Your task to perform on an android device: Go to Google Image 0: 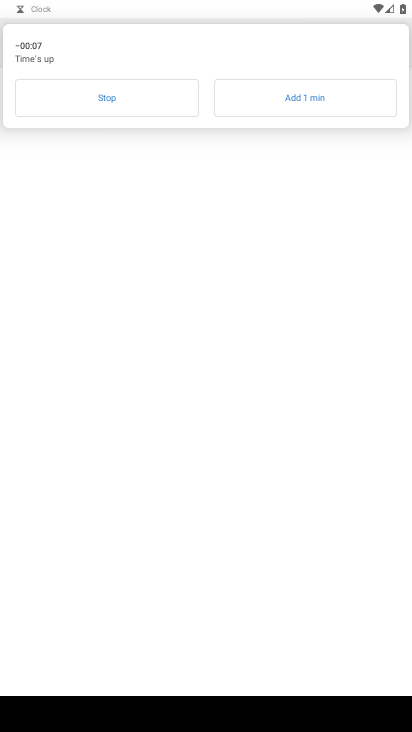
Step 0: press home button
Your task to perform on an android device: Go to Google Image 1: 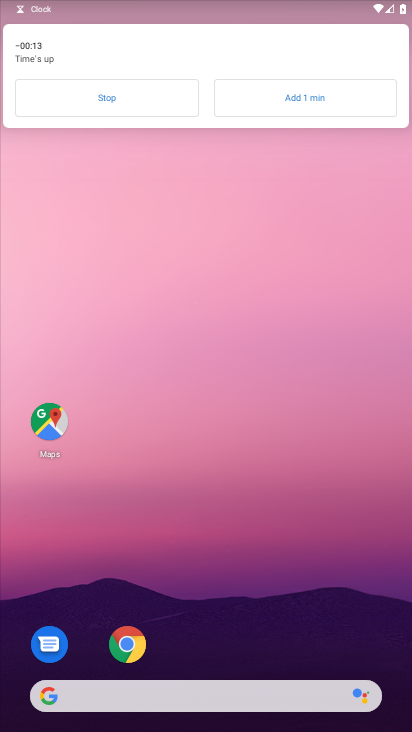
Step 1: click (102, 104)
Your task to perform on an android device: Go to Google Image 2: 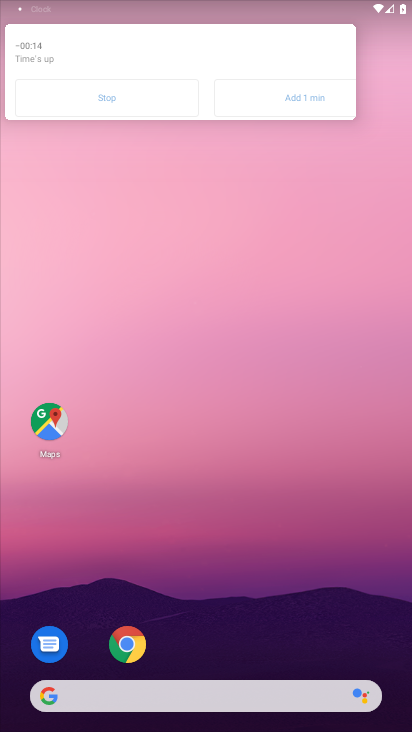
Step 2: click (110, 91)
Your task to perform on an android device: Go to Google Image 3: 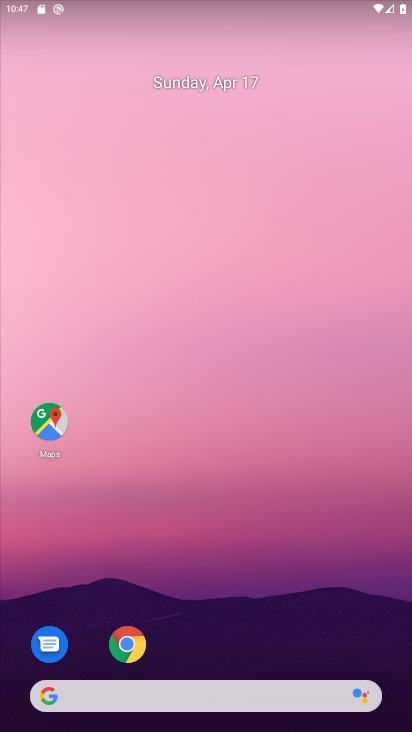
Step 3: drag from (207, 638) to (295, 63)
Your task to perform on an android device: Go to Google Image 4: 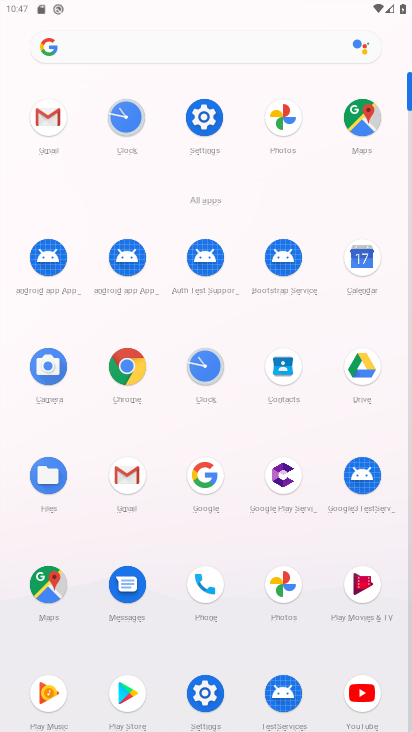
Step 4: click (49, 46)
Your task to perform on an android device: Go to Google Image 5: 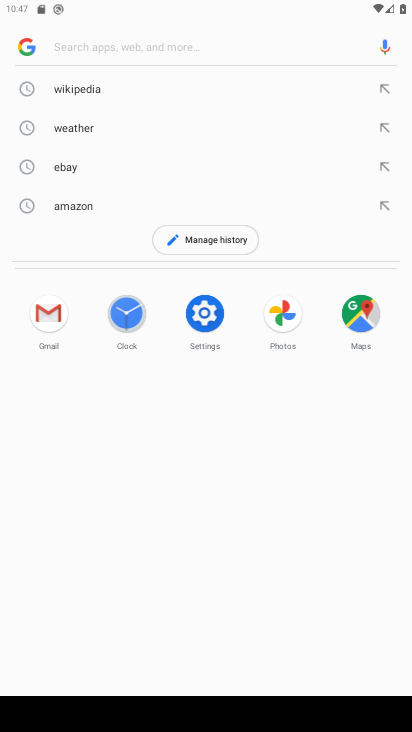
Step 5: click (26, 45)
Your task to perform on an android device: Go to Google Image 6: 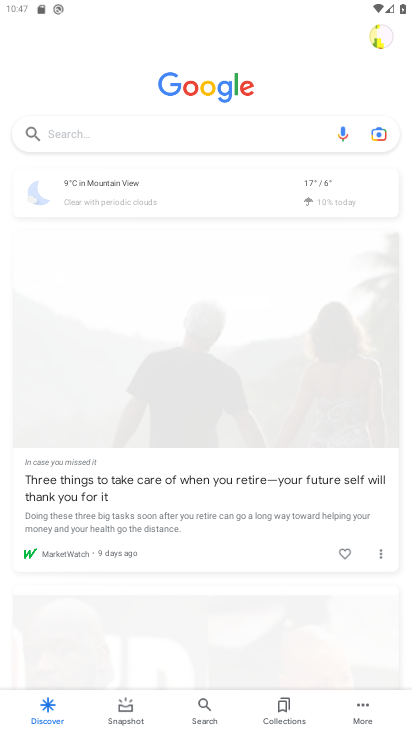
Step 6: task complete